Your task to perform on an android device: check data usage Image 0: 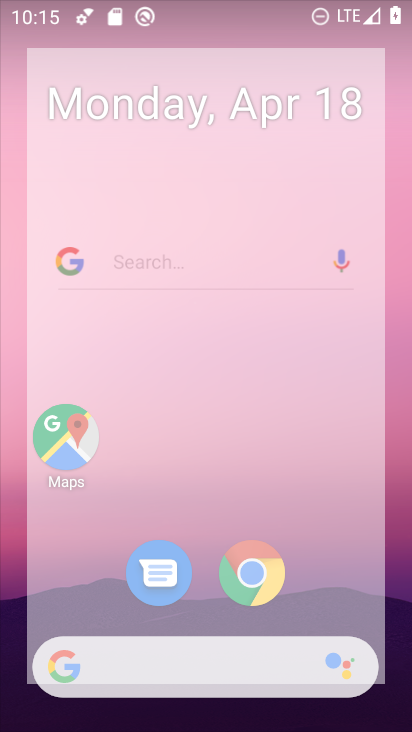
Step 0: drag from (368, 583) to (259, 87)
Your task to perform on an android device: check data usage Image 1: 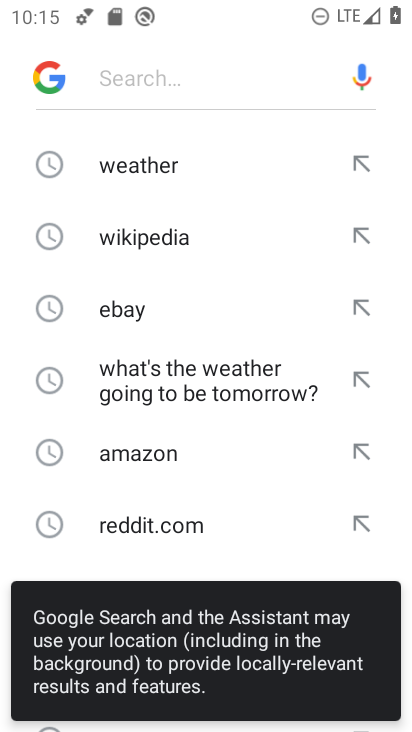
Step 1: press home button
Your task to perform on an android device: check data usage Image 2: 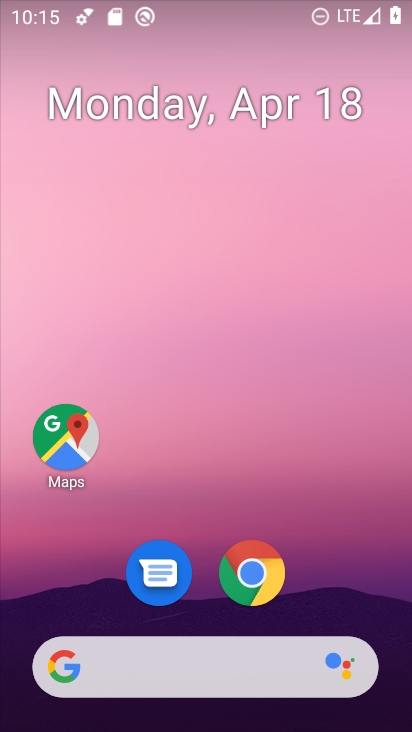
Step 2: drag from (363, 585) to (220, 45)
Your task to perform on an android device: check data usage Image 3: 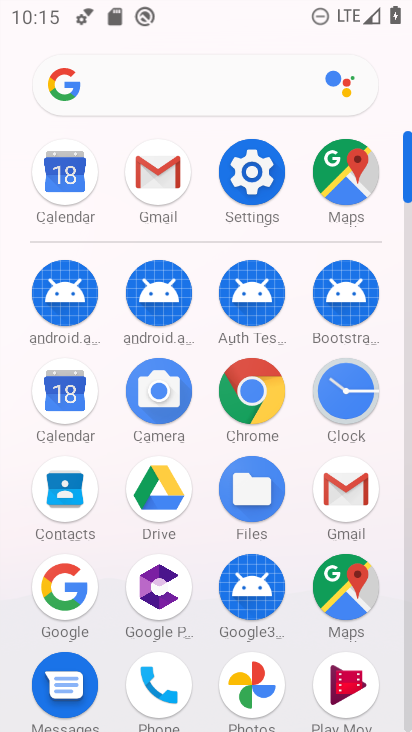
Step 3: click (262, 170)
Your task to perform on an android device: check data usage Image 4: 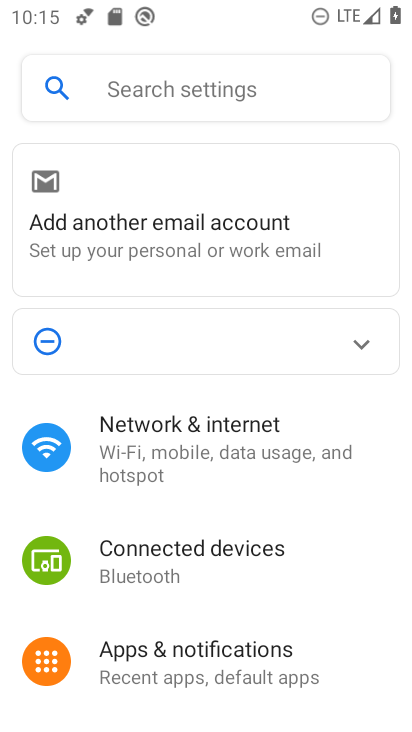
Step 4: drag from (210, 623) to (182, 377)
Your task to perform on an android device: check data usage Image 5: 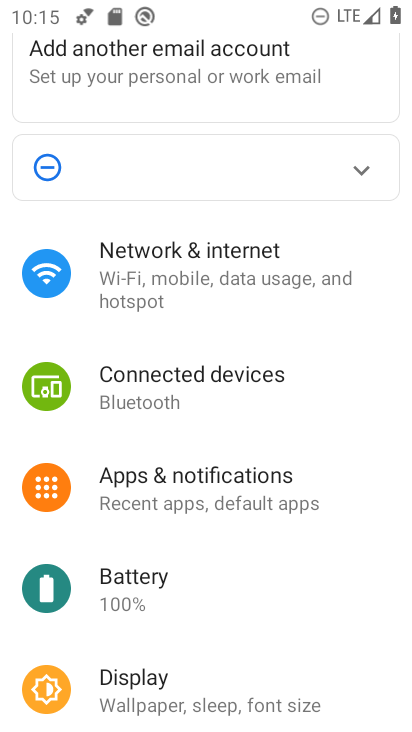
Step 5: click (167, 313)
Your task to perform on an android device: check data usage Image 6: 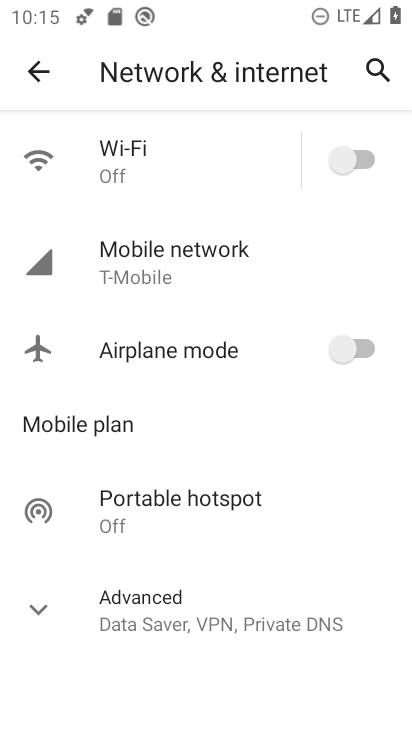
Step 6: click (216, 265)
Your task to perform on an android device: check data usage Image 7: 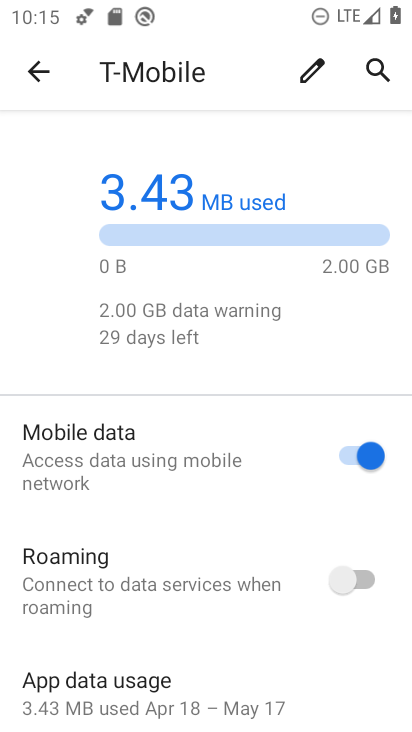
Step 7: click (171, 696)
Your task to perform on an android device: check data usage Image 8: 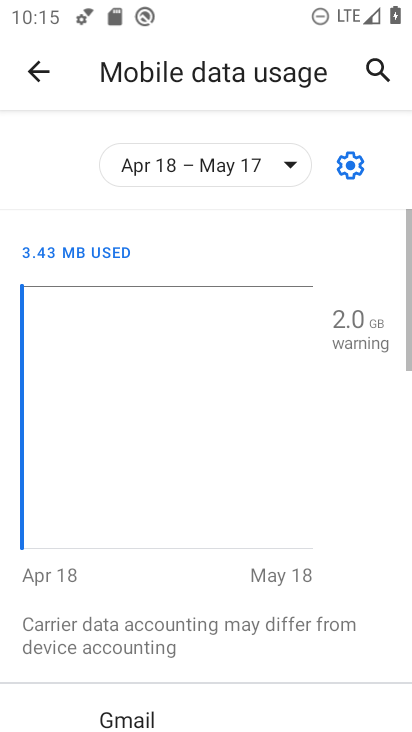
Step 8: task complete